Your task to perform on an android device: set an alarm Image 0: 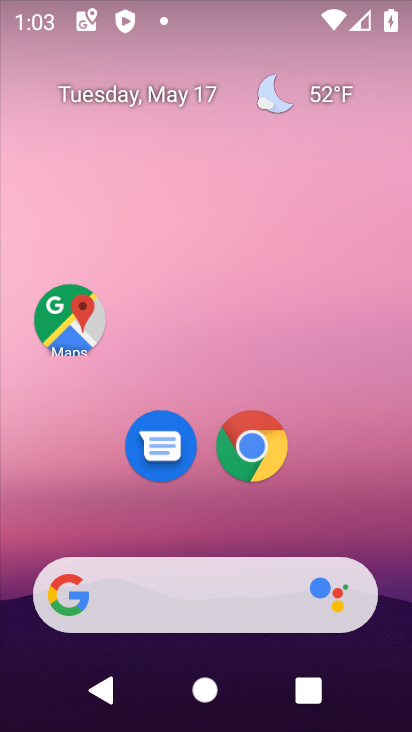
Step 0: drag from (203, 531) to (214, 141)
Your task to perform on an android device: set an alarm Image 1: 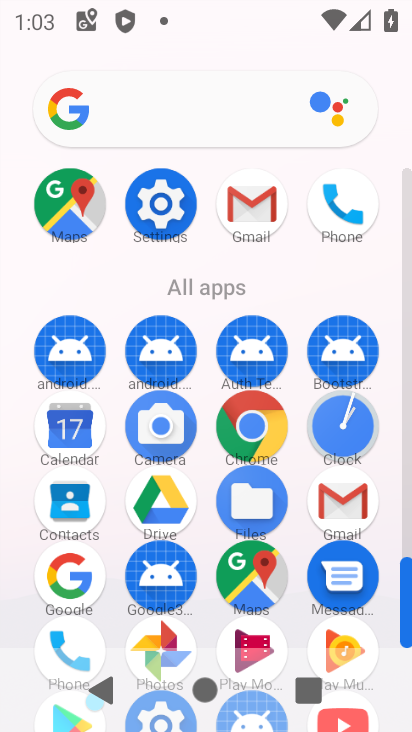
Step 1: click (340, 432)
Your task to perform on an android device: set an alarm Image 2: 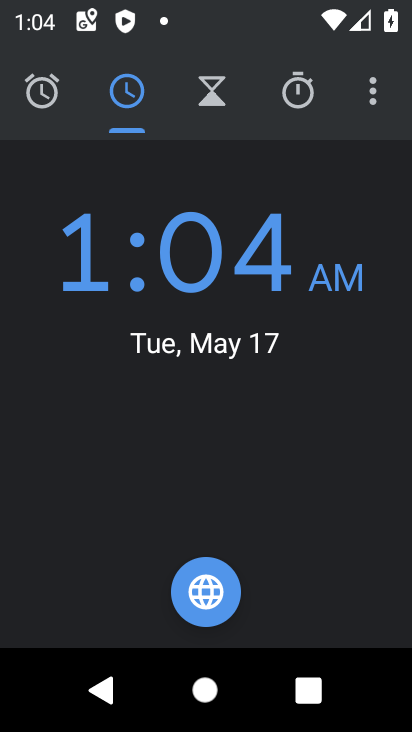
Step 2: click (46, 93)
Your task to perform on an android device: set an alarm Image 3: 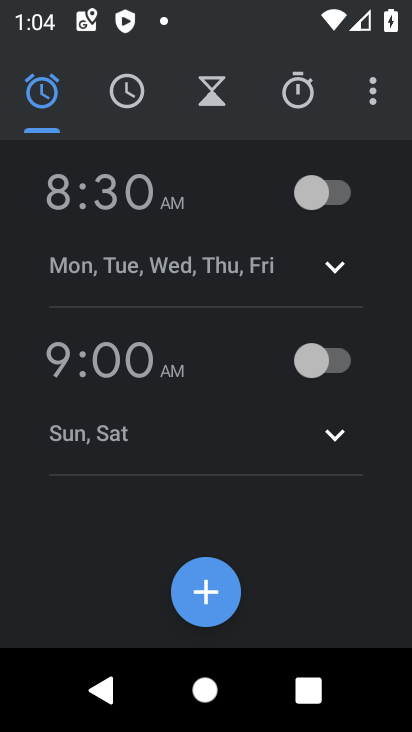
Step 3: click (311, 204)
Your task to perform on an android device: set an alarm Image 4: 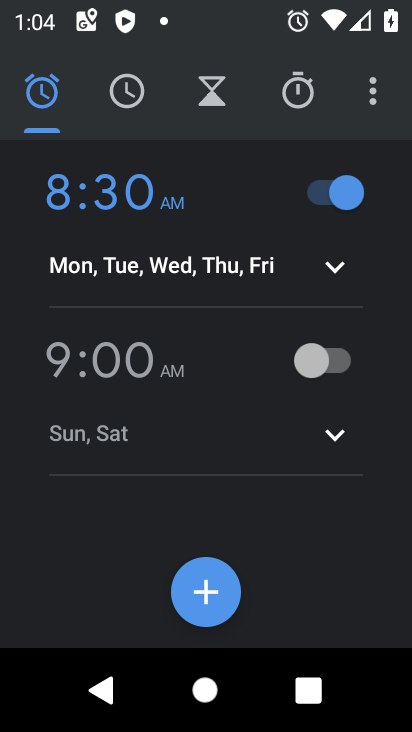
Step 4: task complete